Your task to perform on an android device: toggle improve location accuracy Image 0: 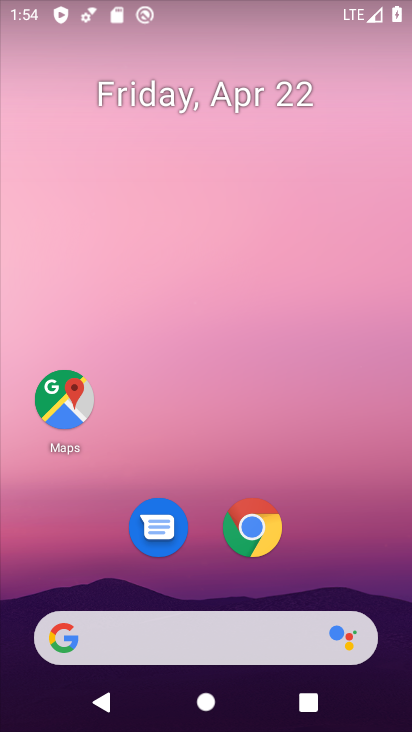
Step 0: drag from (324, 430) to (187, 42)
Your task to perform on an android device: toggle improve location accuracy Image 1: 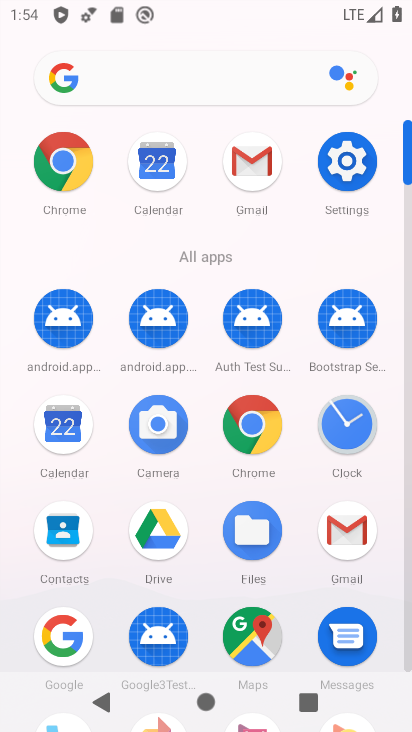
Step 1: click (360, 173)
Your task to perform on an android device: toggle improve location accuracy Image 2: 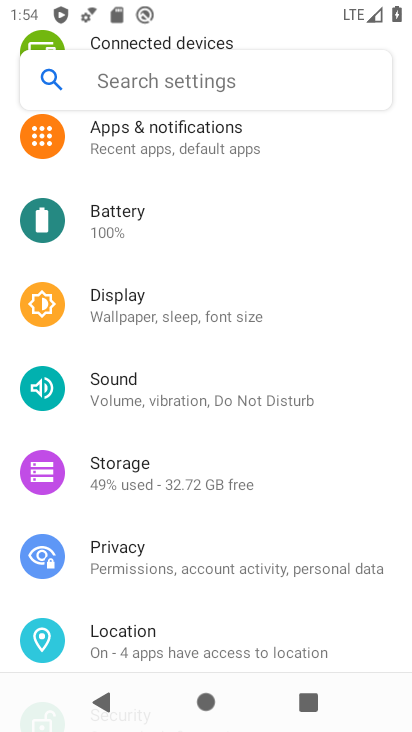
Step 2: click (217, 637)
Your task to perform on an android device: toggle improve location accuracy Image 3: 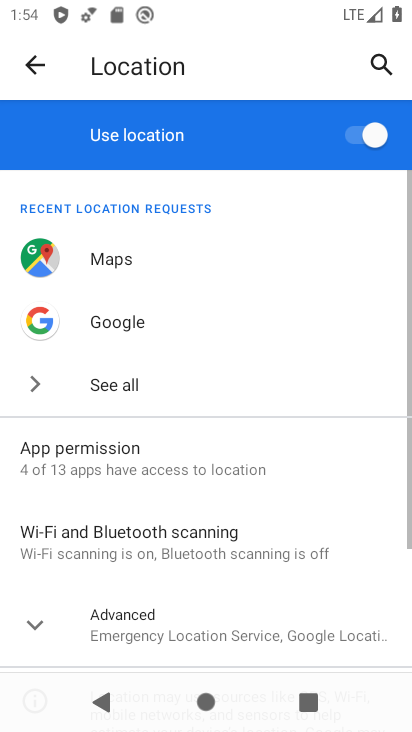
Step 3: click (199, 628)
Your task to perform on an android device: toggle improve location accuracy Image 4: 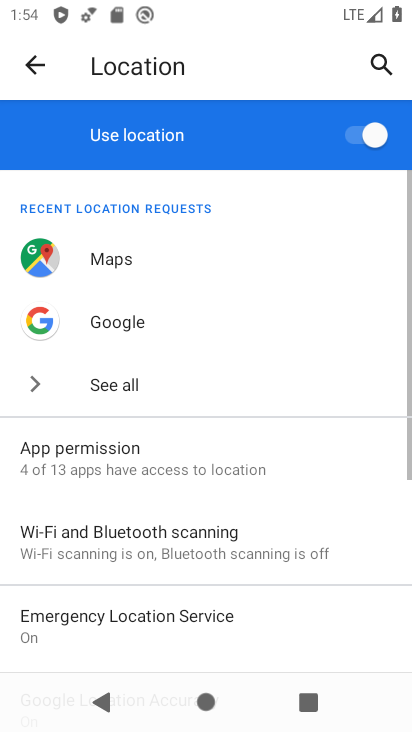
Step 4: drag from (201, 603) to (205, 179)
Your task to perform on an android device: toggle improve location accuracy Image 5: 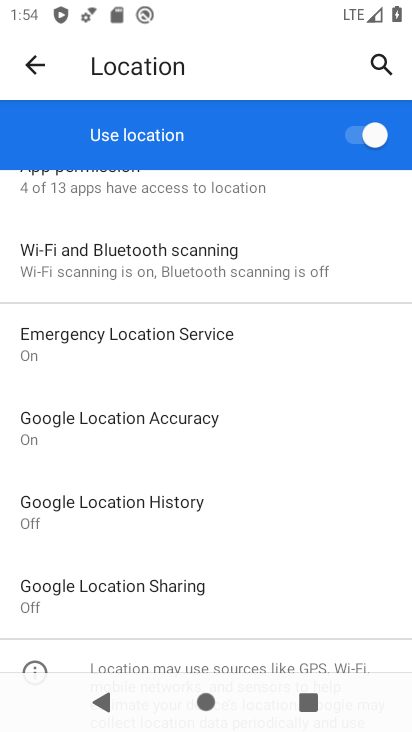
Step 5: click (108, 435)
Your task to perform on an android device: toggle improve location accuracy Image 6: 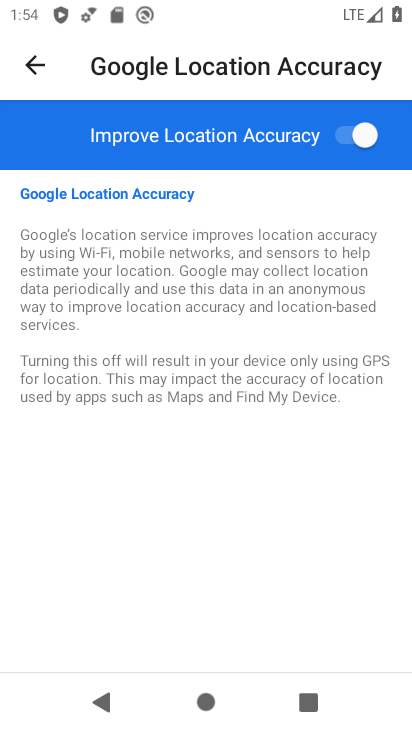
Step 6: click (366, 139)
Your task to perform on an android device: toggle improve location accuracy Image 7: 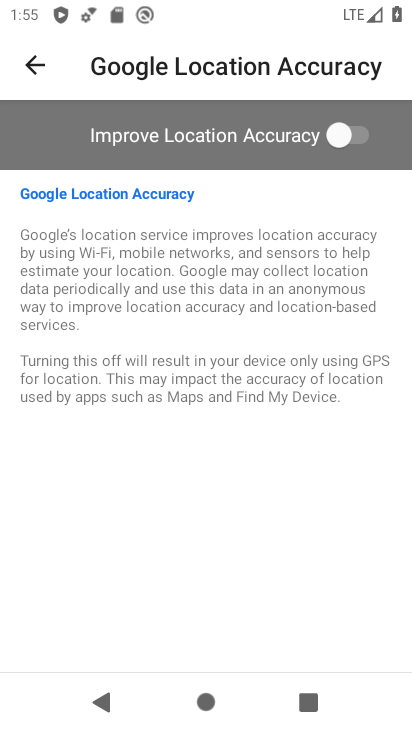
Step 7: task complete